Your task to perform on an android device: Open network settings Image 0: 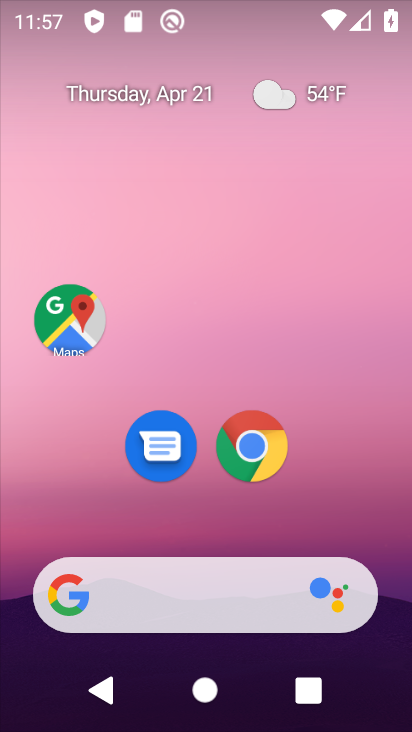
Step 0: drag from (375, 516) to (309, 194)
Your task to perform on an android device: Open network settings Image 1: 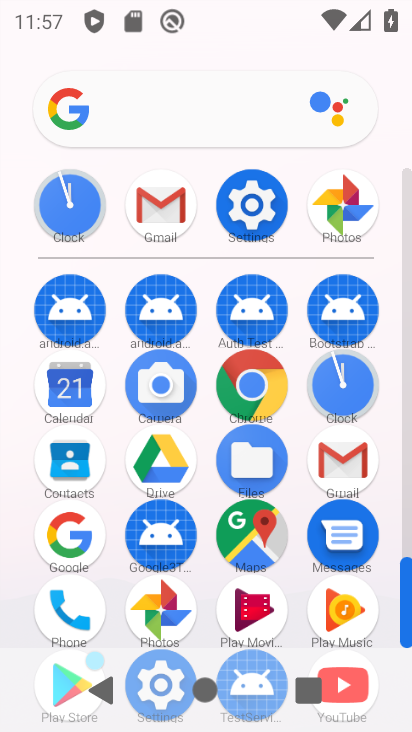
Step 1: click (259, 188)
Your task to perform on an android device: Open network settings Image 2: 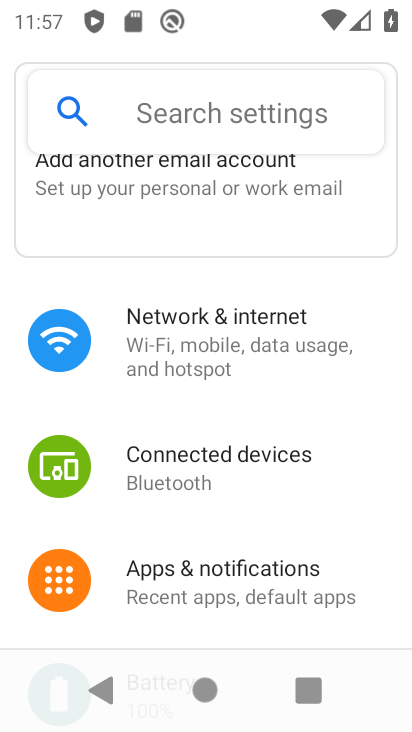
Step 2: click (281, 334)
Your task to perform on an android device: Open network settings Image 3: 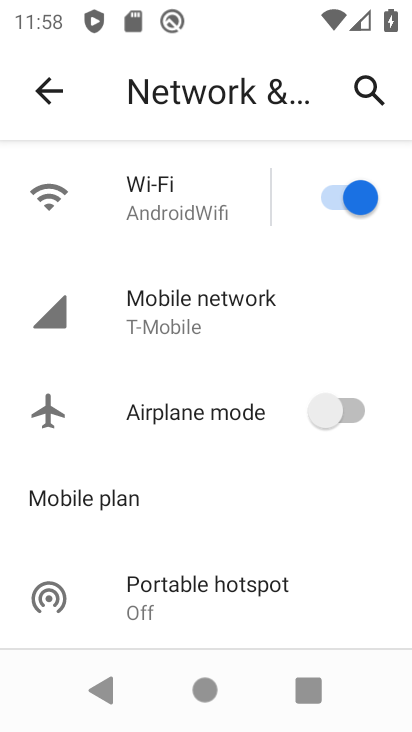
Step 3: task complete